Your task to perform on an android device: Open location settings Image 0: 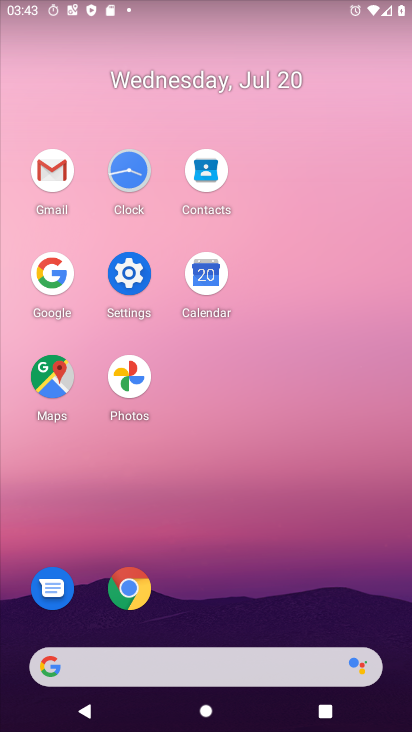
Step 0: click (141, 275)
Your task to perform on an android device: Open location settings Image 1: 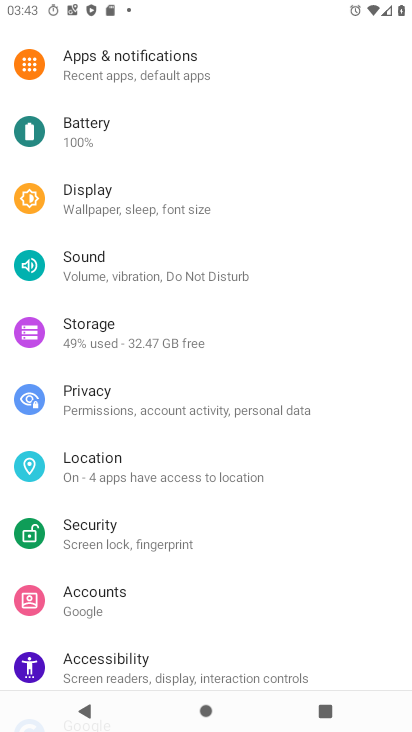
Step 1: click (161, 456)
Your task to perform on an android device: Open location settings Image 2: 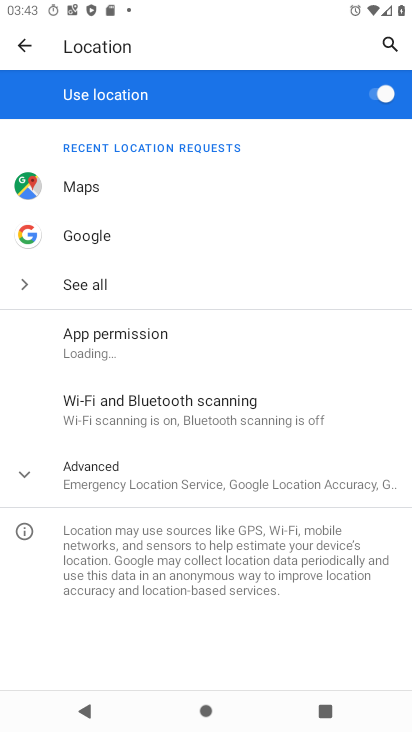
Step 2: task complete